Your task to perform on an android device: move an email to a new category in the gmail app Image 0: 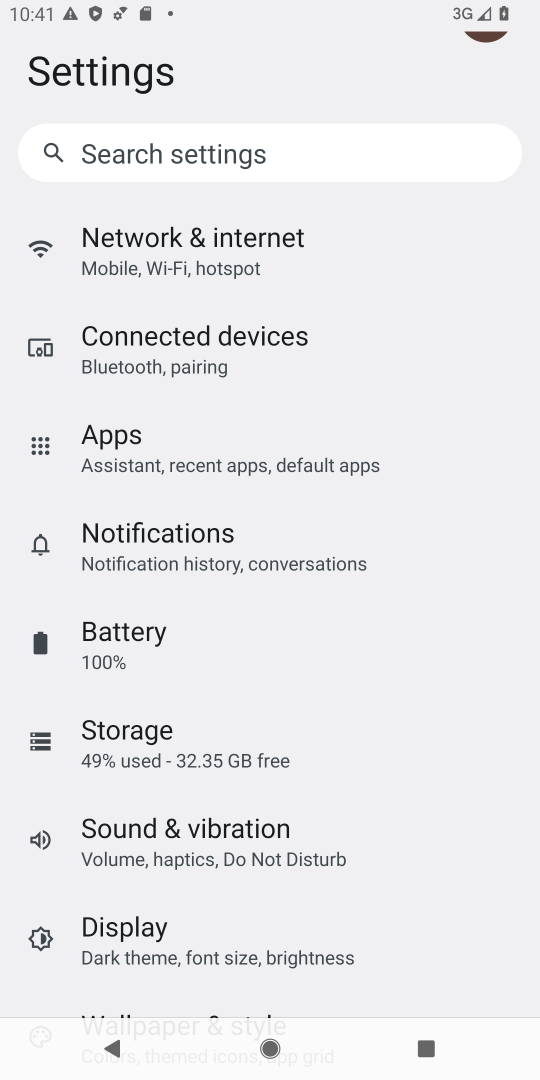
Step 0: press back button
Your task to perform on an android device: move an email to a new category in the gmail app Image 1: 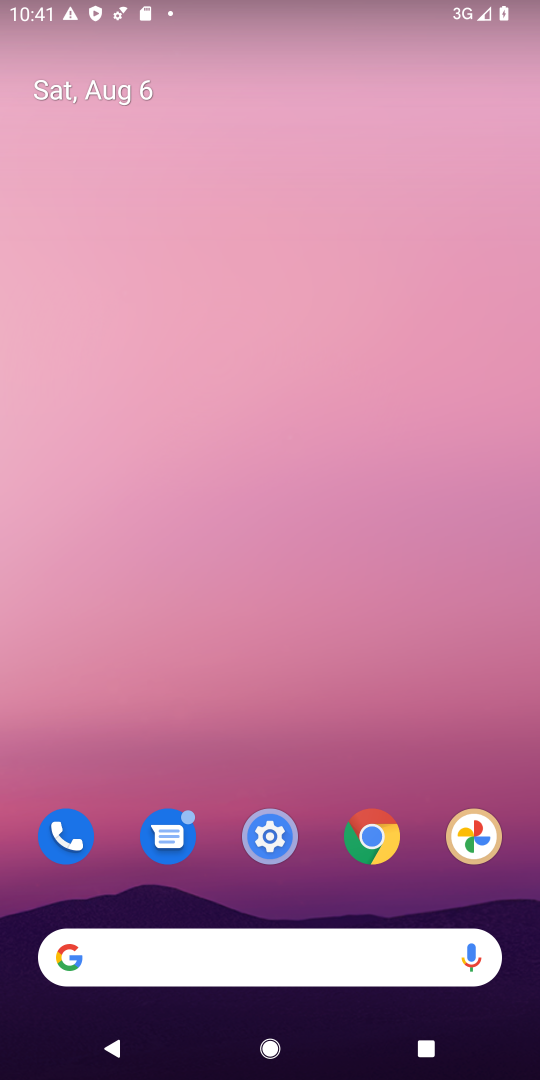
Step 1: drag from (283, 714) to (273, 168)
Your task to perform on an android device: move an email to a new category in the gmail app Image 2: 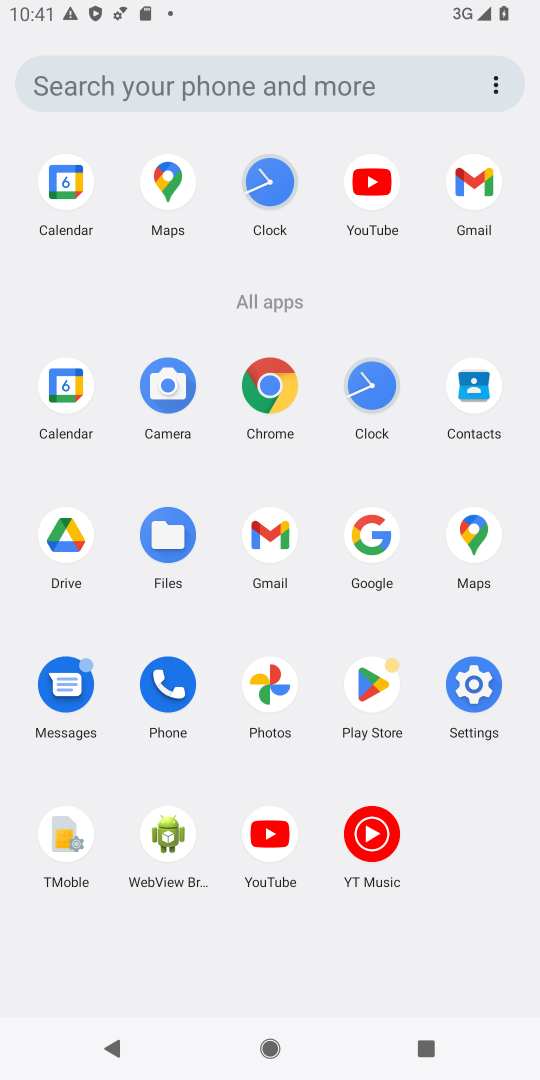
Step 2: click (263, 551)
Your task to perform on an android device: move an email to a new category in the gmail app Image 3: 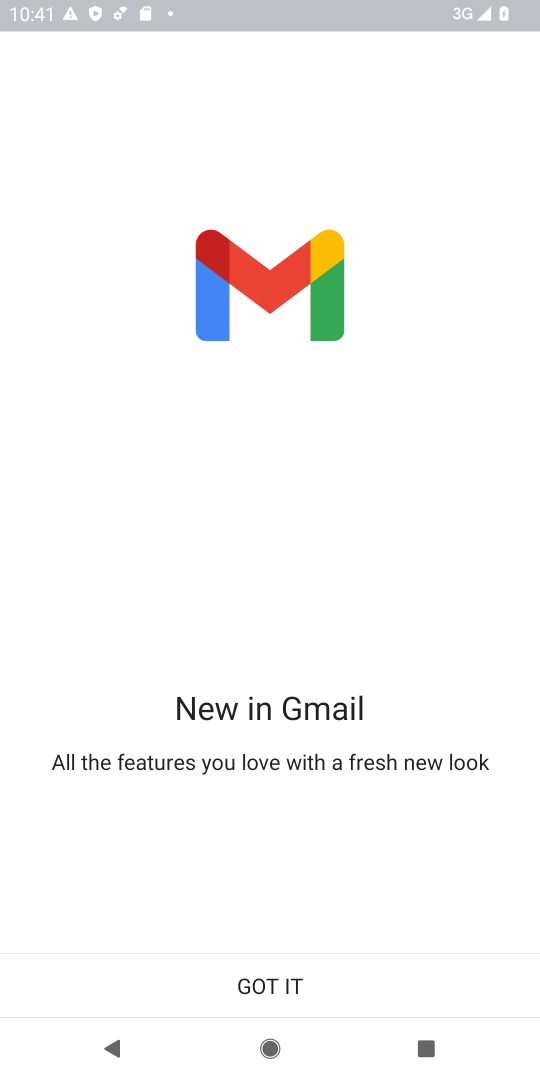
Step 3: click (250, 975)
Your task to perform on an android device: move an email to a new category in the gmail app Image 4: 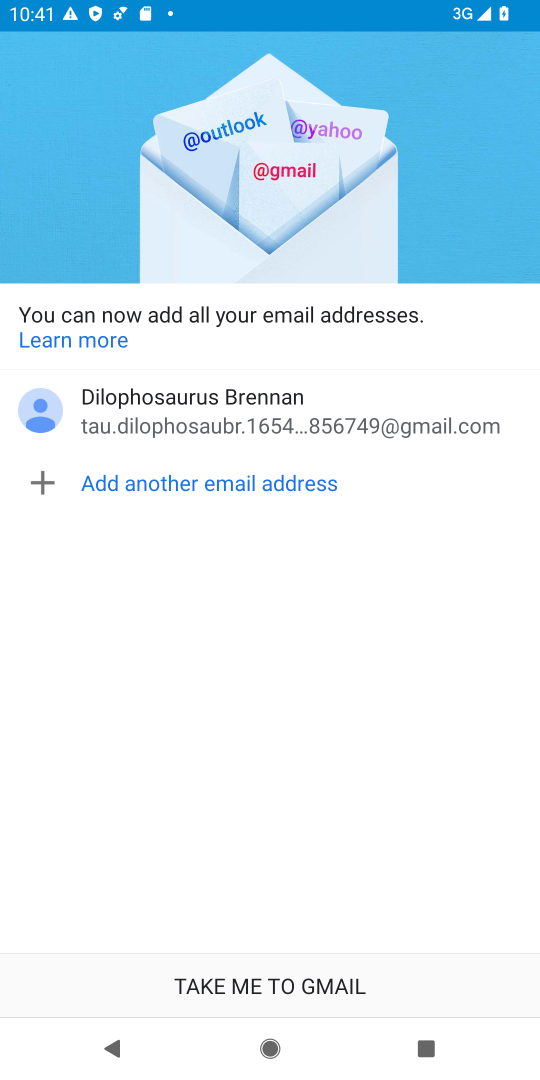
Step 4: click (250, 975)
Your task to perform on an android device: move an email to a new category in the gmail app Image 5: 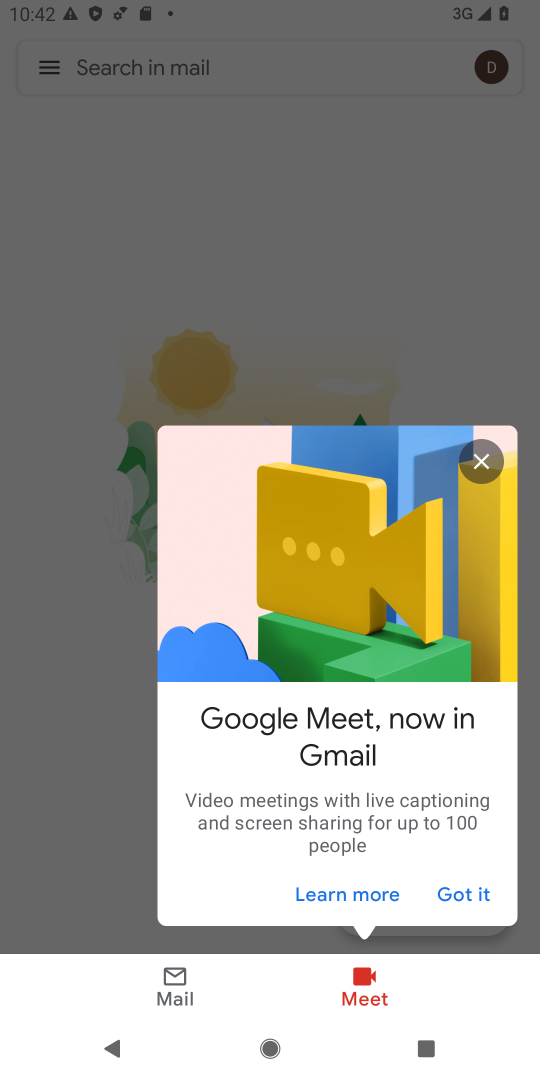
Step 5: press home button
Your task to perform on an android device: move an email to a new category in the gmail app Image 6: 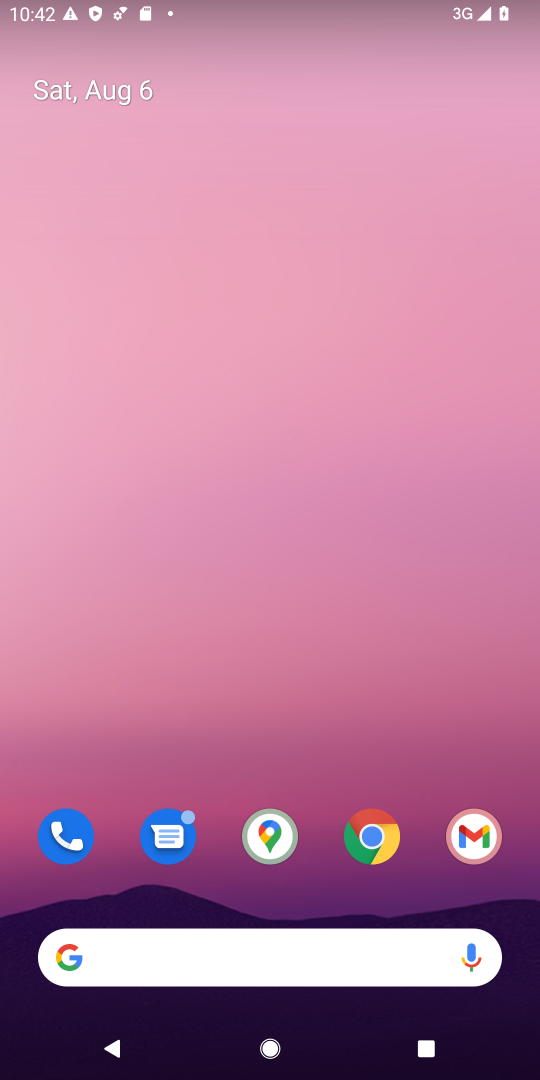
Step 6: click (464, 840)
Your task to perform on an android device: move an email to a new category in the gmail app Image 7: 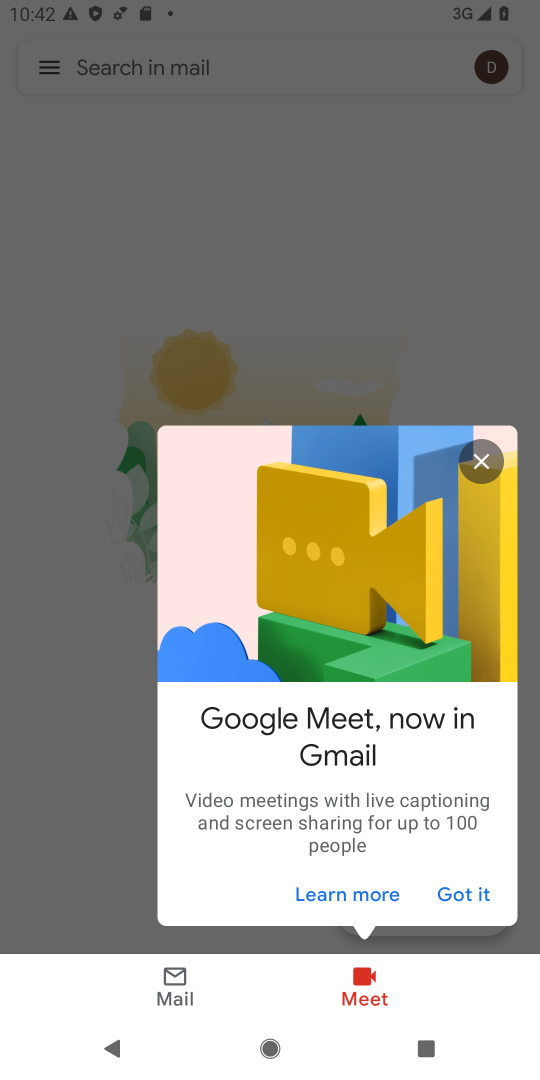
Step 7: click (457, 883)
Your task to perform on an android device: move an email to a new category in the gmail app Image 8: 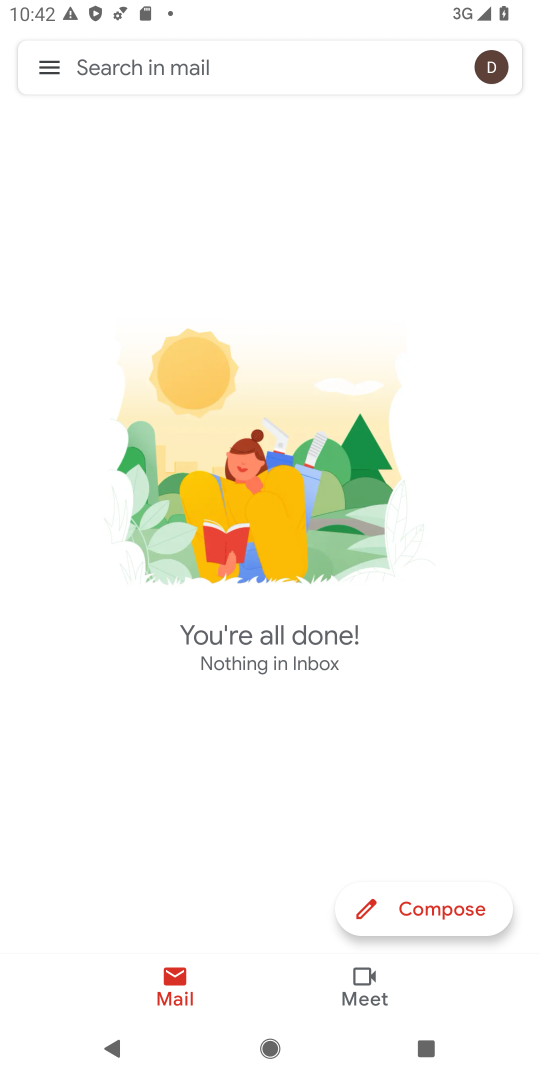
Step 8: click (41, 66)
Your task to perform on an android device: move an email to a new category in the gmail app Image 9: 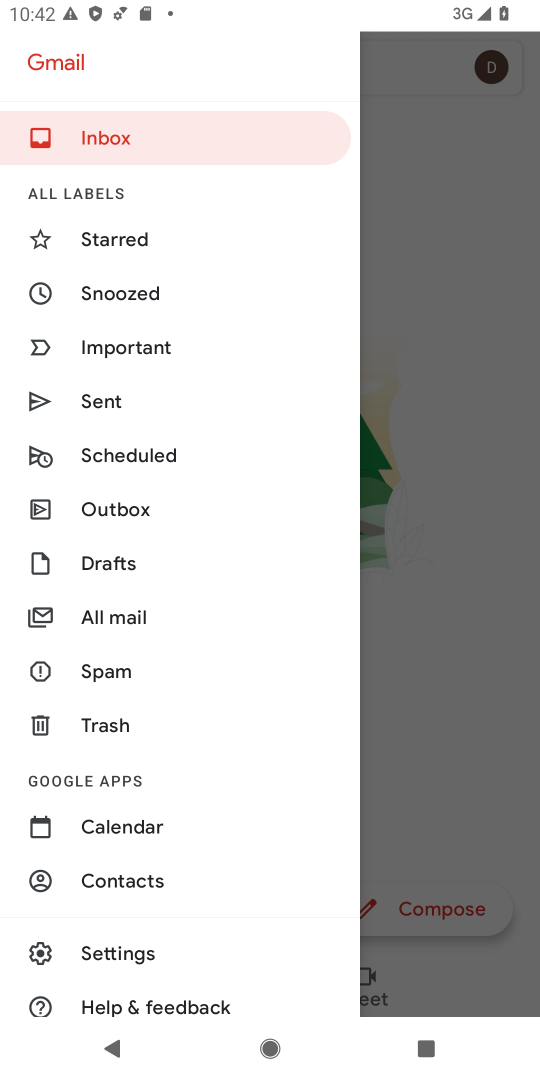
Step 9: click (137, 607)
Your task to perform on an android device: move an email to a new category in the gmail app Image 10: 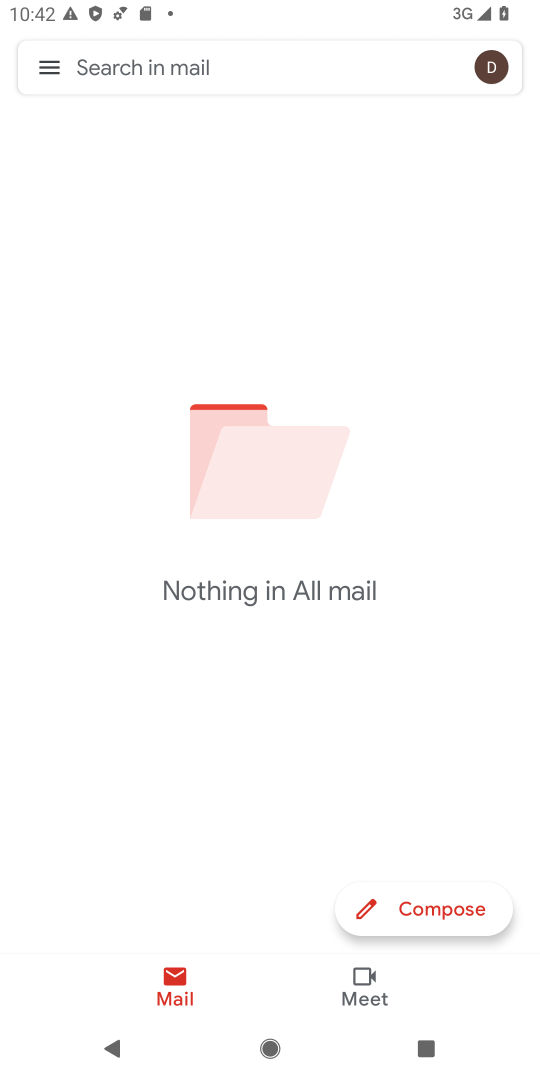
Step 10: task complete